Your task to perform on an android device: change the clock display to analog Image 0: 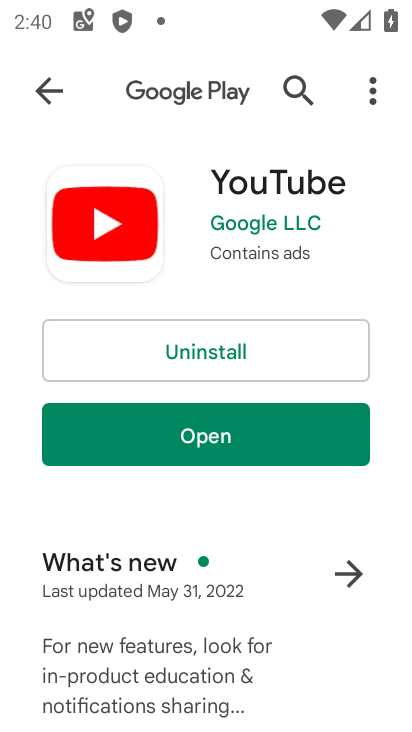
Step 0: press home button
Your task to perform on an android device: change the clock display to analog Image 1: 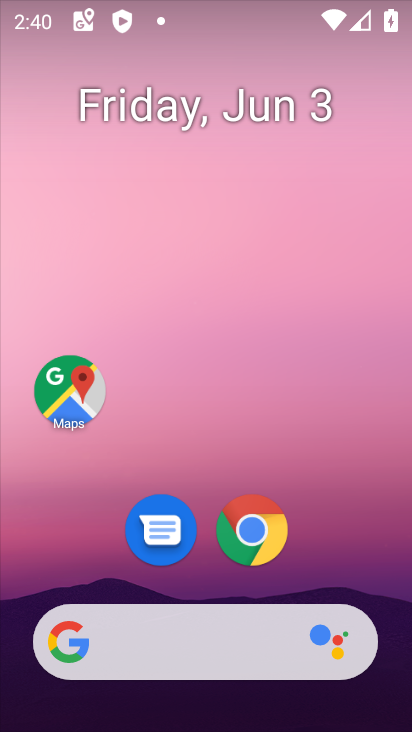
Step 1: drag from (339, 482) to (202, 74)
Your task to perform on an android device: change the clock display to analog Image 2: 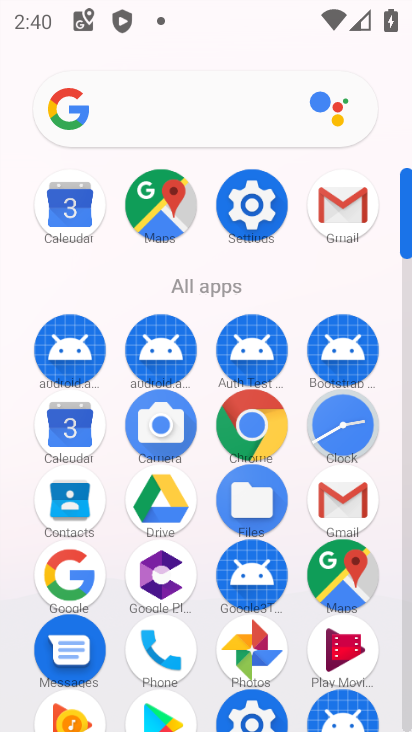
Step 2: click (344, 416)
Your task to perform on an android device: change the clock display to analog Image 3: 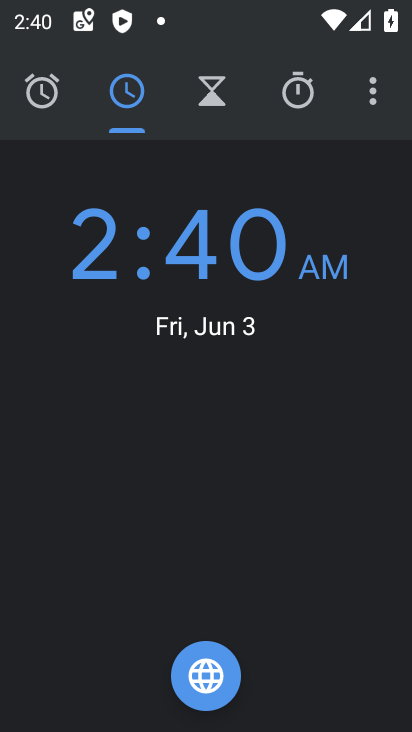
Step 3: click (370, 101)
Your task to perform on an android device: change the clock display to analog Image 4: 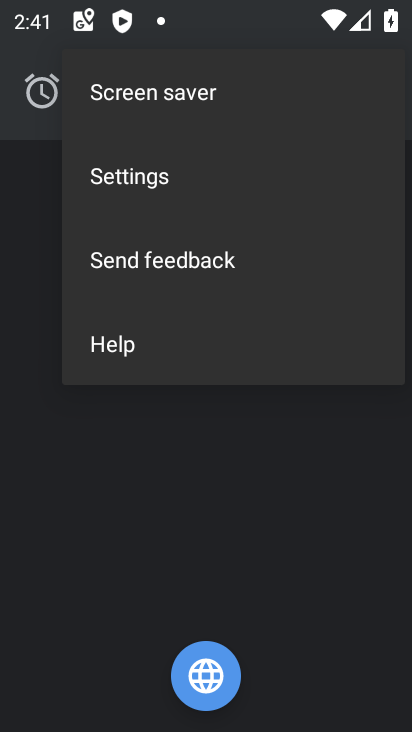
Step 4: click (147, 173)
Your task to perform on an android device: change the clock display to analog Image 5: 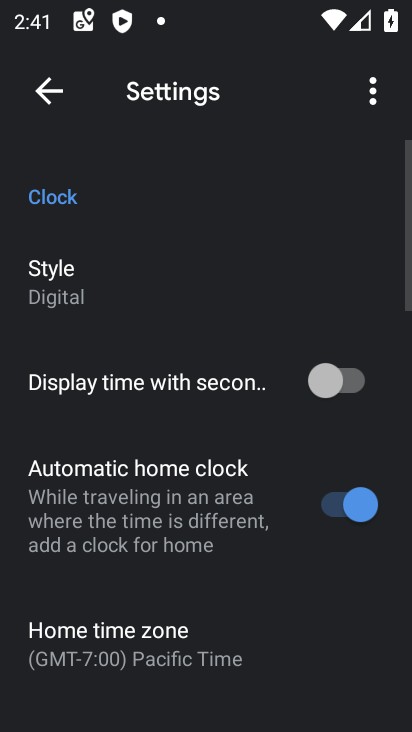
Step 5: click (51, 284)
Your task to perform on an android device: change the clock display to analog Image 6: 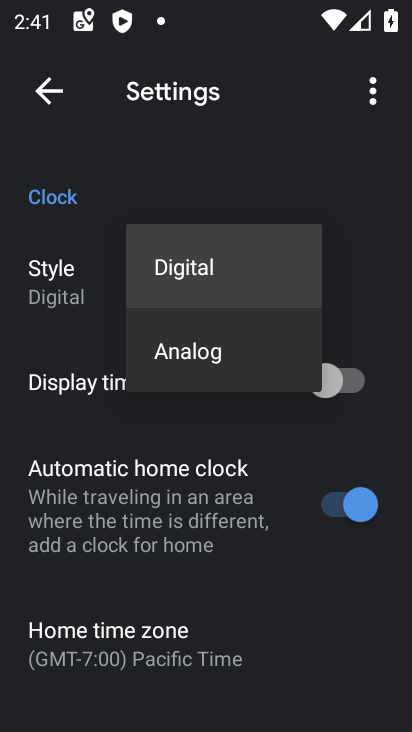
Step 6: click (186, 355)
Your task to perform on an android device: change the clock display to analog Image 7: 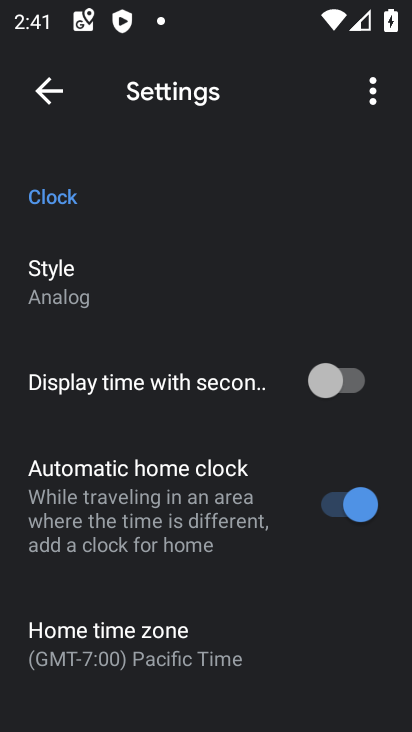
Step 7: task complete